Your task to perform on an android device: Turn on the flashlight Image 0: 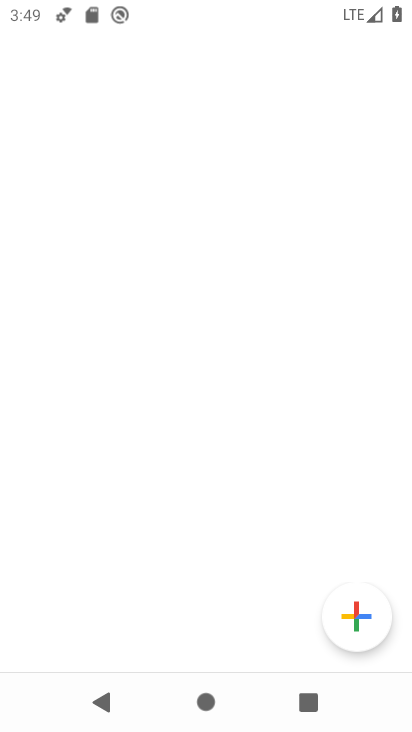
Step 0: click (247, 523)
Your task to perform on an android device: Turn on the flashlight Image 1: 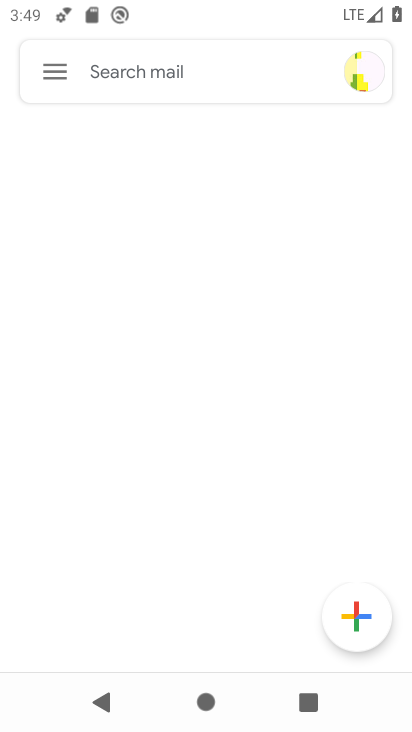
Step 1: press home button
Your task to perform on an android device: Turn on the flashlight Image 2: 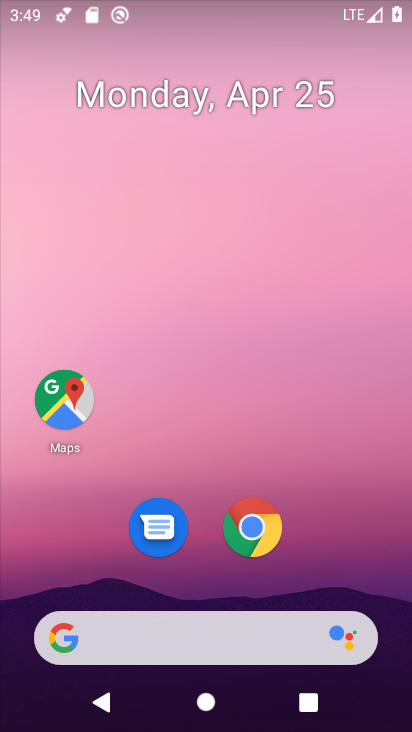
Step 2: drag from (218, 12) to (230, 642)
Your task to perform on an android device: Turn on the flashlight Image 3: 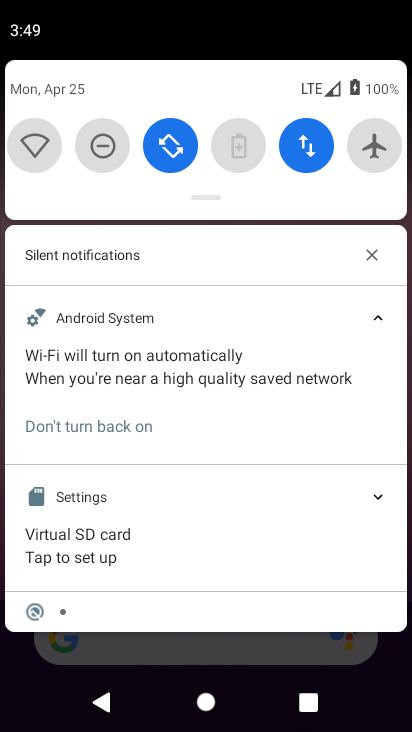
Step 3: drag from (215, 198) to (234, 555)
Your task to perform on an android device: Turn on the flashlight Image 4: 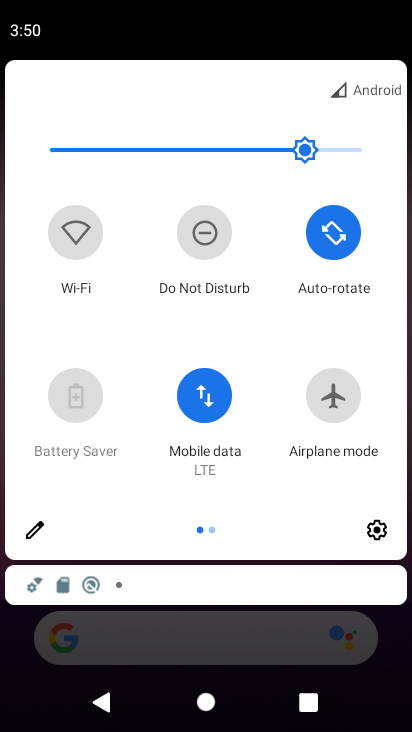
Step 4: click (34, 526)
Your task to perform on an android device: Turn on the flashlight Image 5: 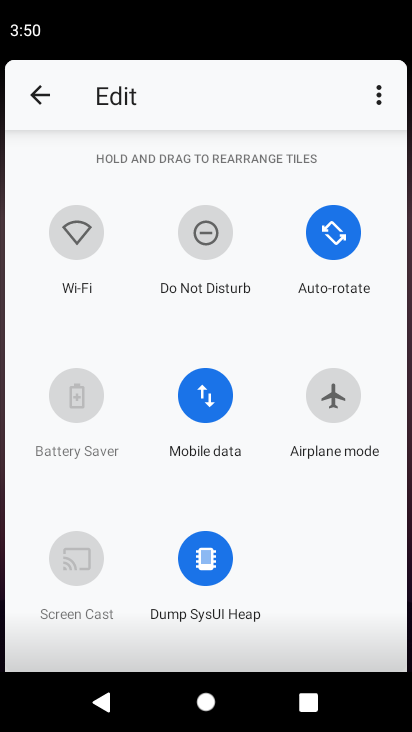
Step 5: task complete